Your task to perform on an android device: toggle priority inbox in the gmail app Image 0: 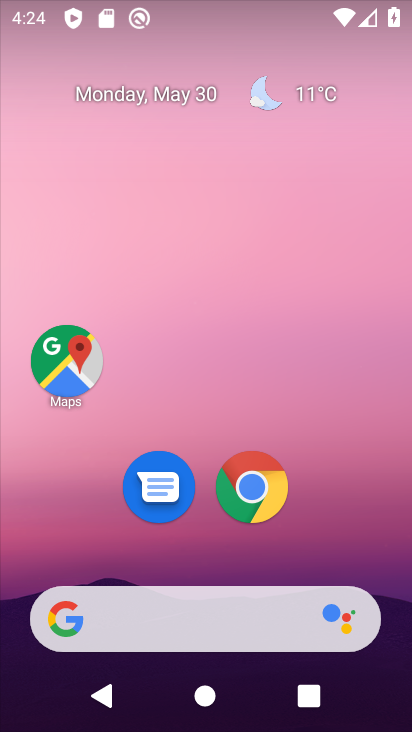
Step 0: drag from (392, 593) to (297, 31)
Your task to perform on an android device: toggle priority inbox in the gmail app Image 1: 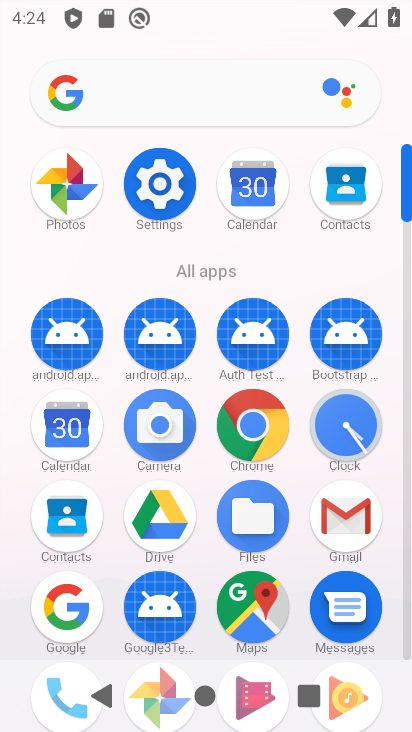
Step 1: click (407, 641)
Your task to perform on an android device: toggle priority inbox in the gmail app Image 2: 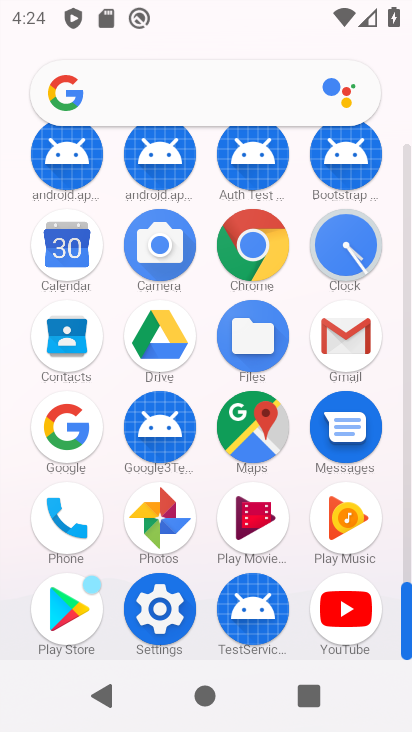
Step 2: click (348, 332)
Your task to perform on an android device: toggle priority inbox in the gmail app Image 3: 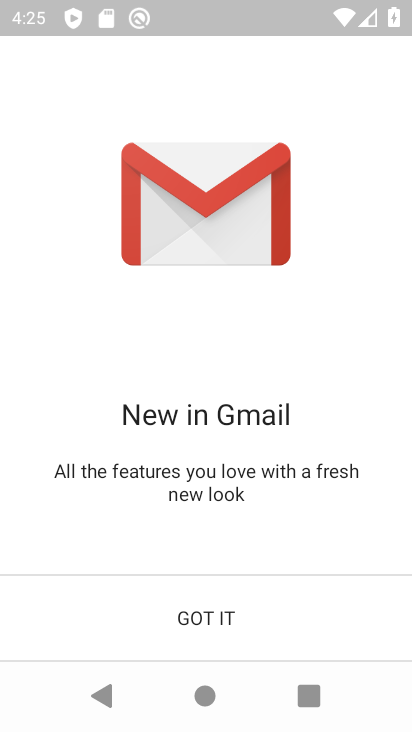
Step 3: click (207, 613)
Your task to perform on an android device: toggle priority inbox in the gmail app Image 4: 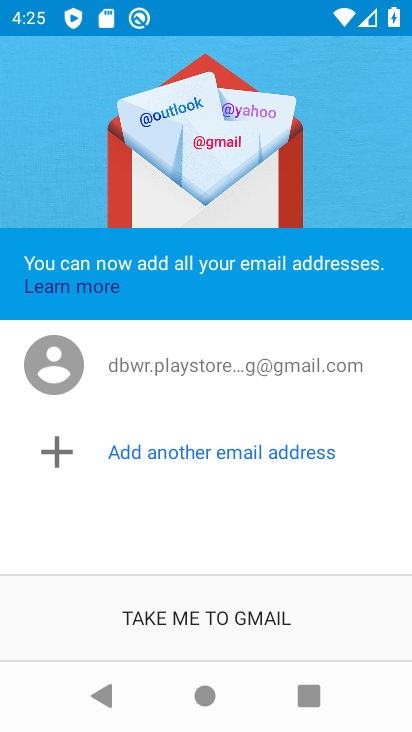
Step 4: click (207, 612)
Your task to perform on an android device: toggle priority inbox in the gmail app Image 5: 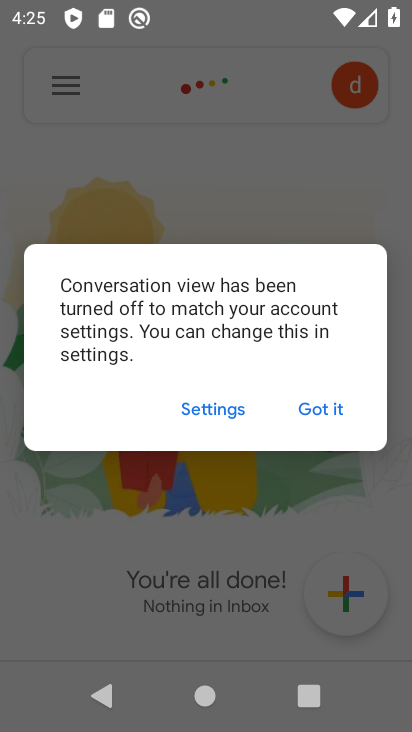
Step 5: click (307, 398)
Your task to perform on an android device: toggle priority inbox in the gmail app Image 6: 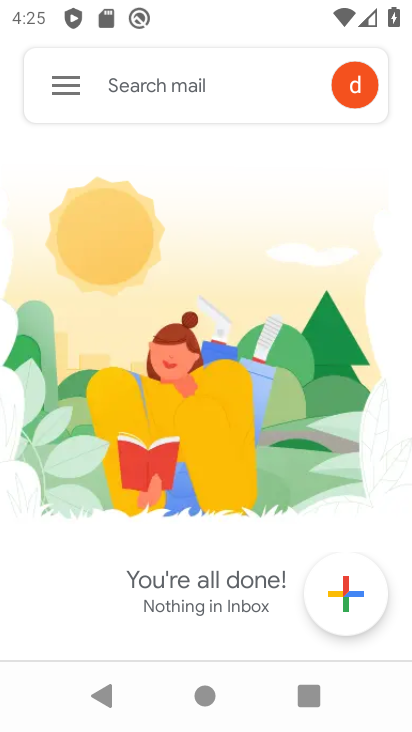
Step 6: click (67, 79)
Your task to perform on an android device: toggle priority inbox in the gmail app Image 7: 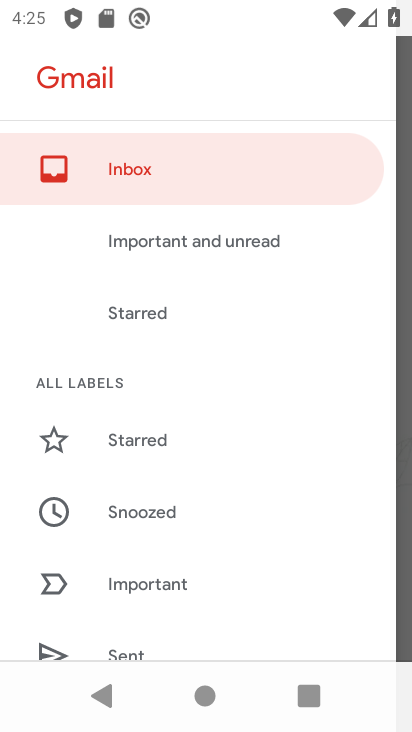
Step 7: drag from (208, 512) to (253, 148)
Your task to perform on an android device: toggle priority inbox in the gmail app Image 8: 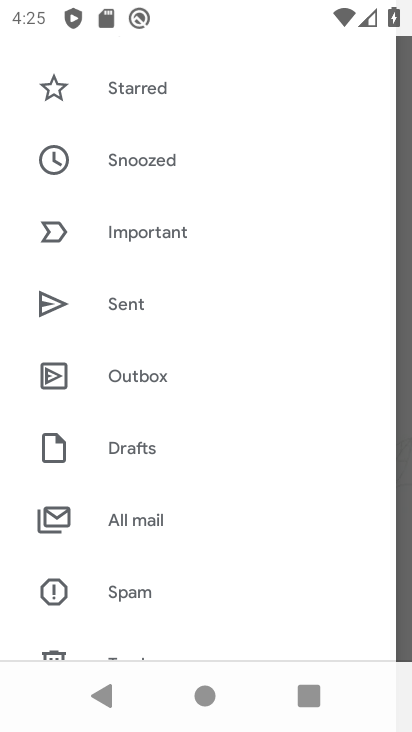
Step 8: drag from (294, 548) to (276, 195)
Your task to perform on an android device: toggle priority inbox in the gmail app Image 9: 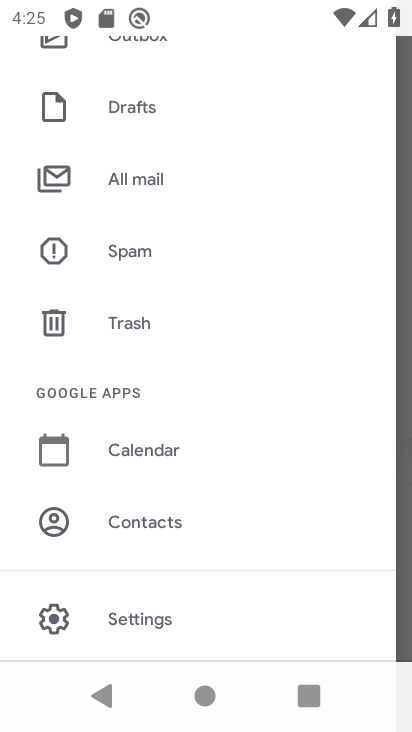
Step 9: click (152, 607)
Your task to perform on an android device: toggle priority inbox in the gmail app Image 10: 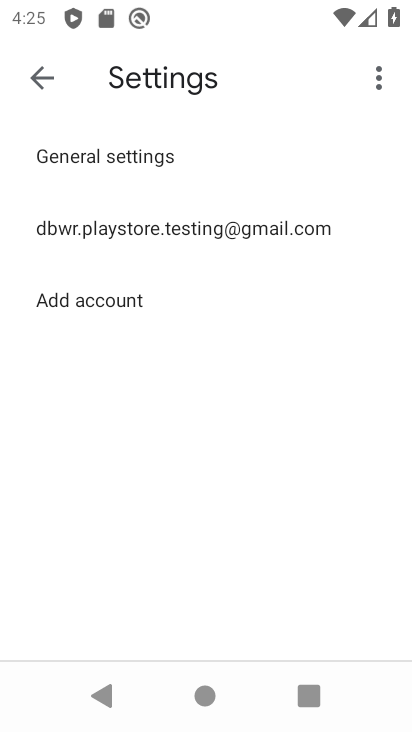
Step 10: click (179, 227)
Your task to perform on an android device: toggle priority inbox in the gmail app Image 11: 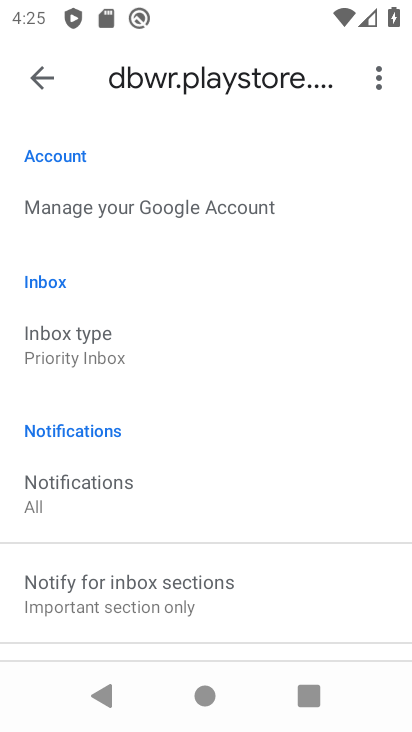
Step 11: click (87, 352)
Your task to perform on an android device: toggle priority inbox in the gmail app Image 12: 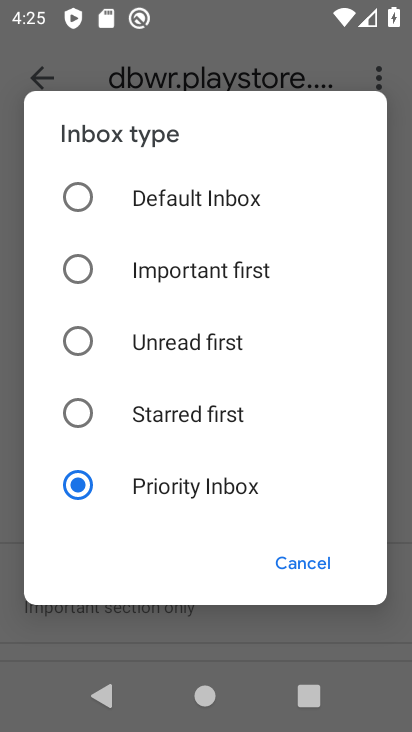
Step 12: click (73, 194)
Your task to perform on an android device: toggle priority inbox in the gmail app Image 13: 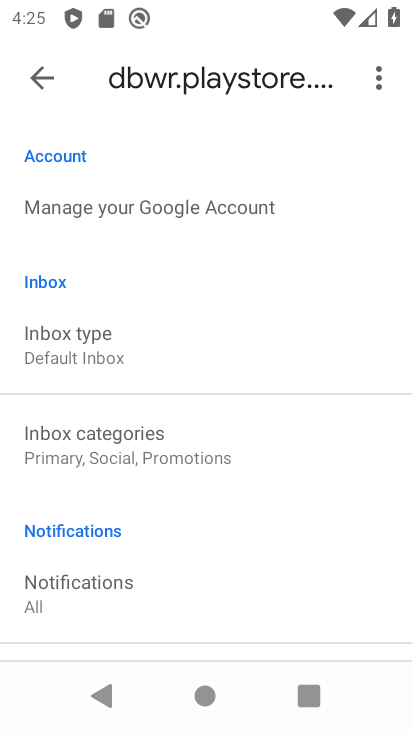
Step 13: task complete